Your task to perform on an android device: refresh tabs in the chrome app Image 0: 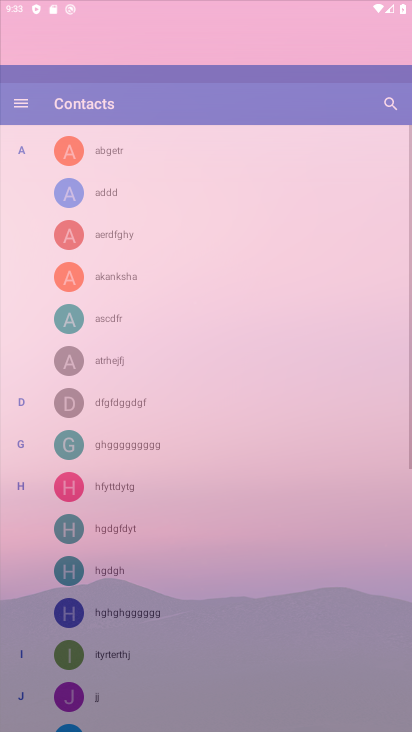
Step 0: click (231, 284)
Your task to perform on an android device: refresh tabs in the chrome app Image 1: 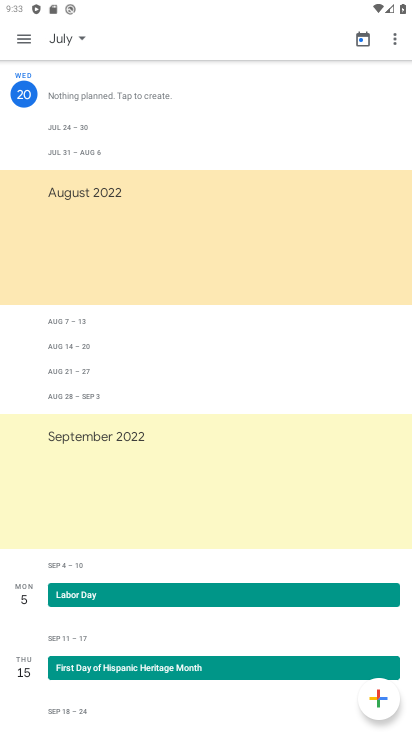
Step 1: press home button
Your task to perform on an android device: refresh tabs in the chrome app Image 2: 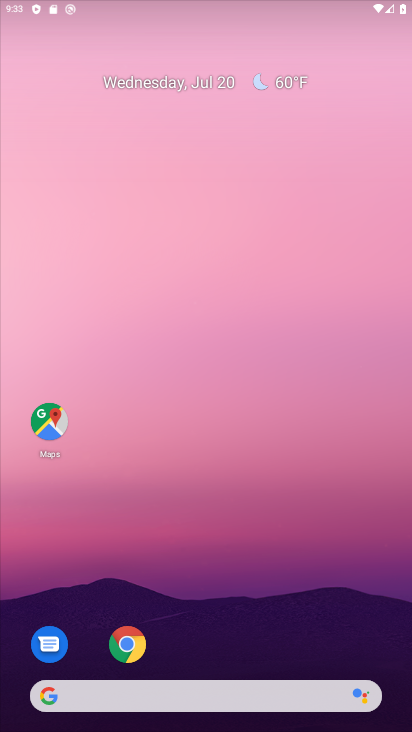
Step 2: click (198, 666)
Your task to perform on an android device: refresh tabs in the chrome app Image 3: 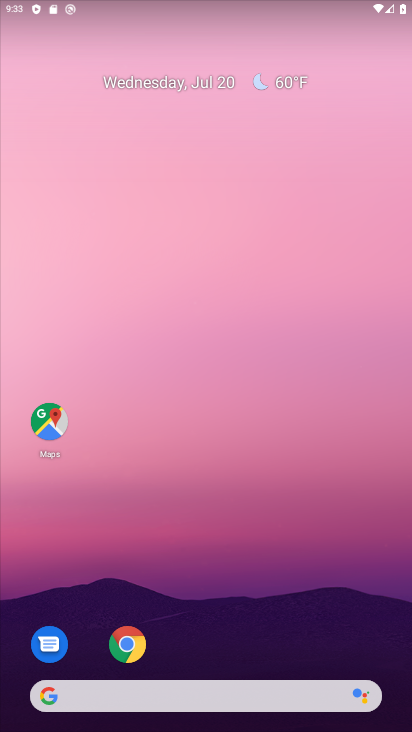
Step 3: click (132, 653)
Your task to perform on an android device: refresh tabs in the chrome app Image 4: 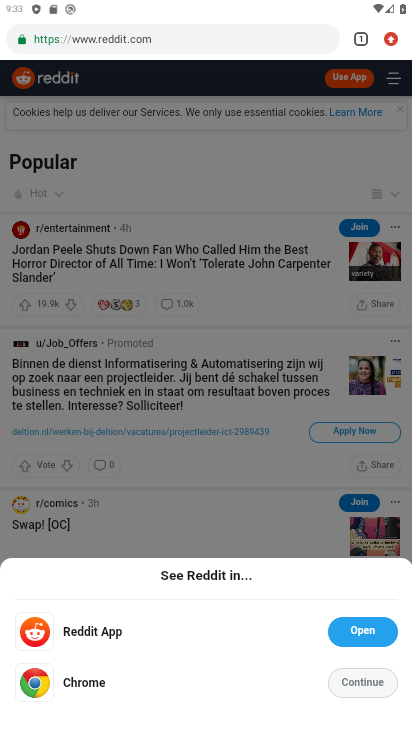
Step 4: click (383, 35)
Your task to perform on an android device: refresh tabs in the chrome app Image 5: 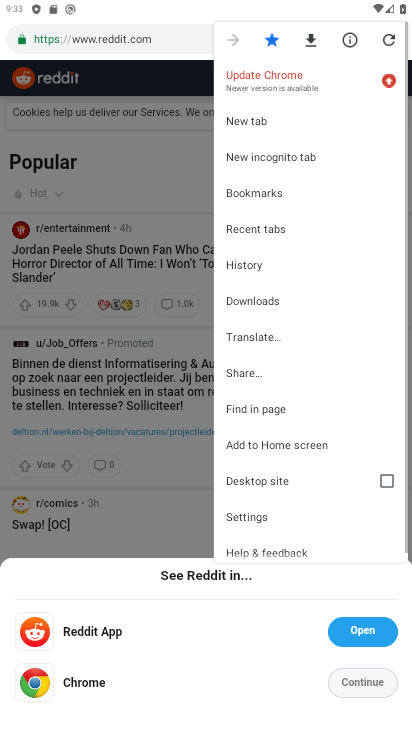
Step 5: click (385, 38)
Your task to perform on an android device: refresh tabs in the chrome app Image 6: 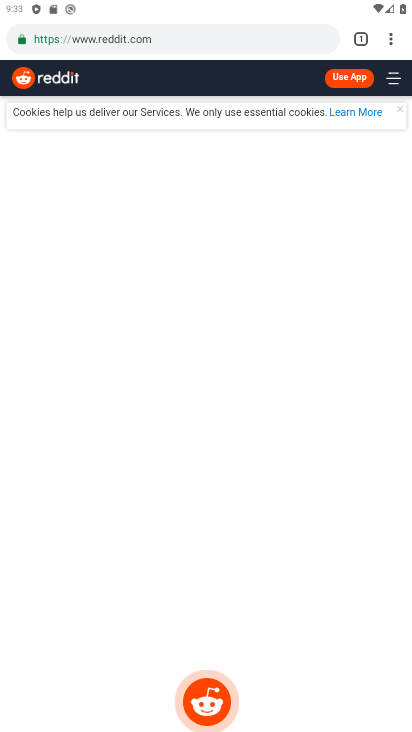
Step 6: task complete